Your task to perform on an android device: Go to accessibility settings Image 0: 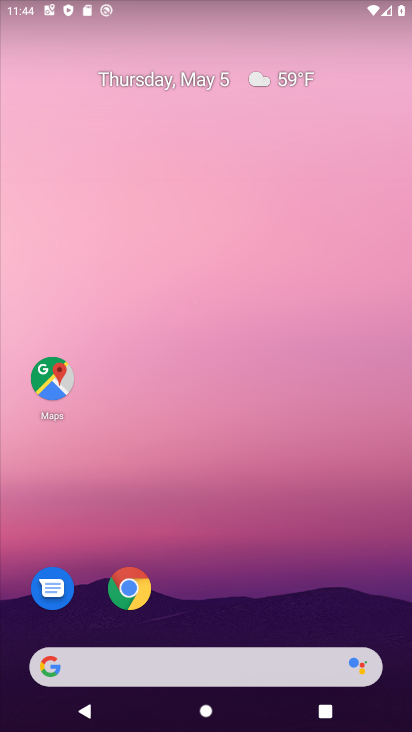
Step 0: drag from (292, 558) to (315, 78)
Your task to perform on an android device: Go to accessibility settings Image 1: 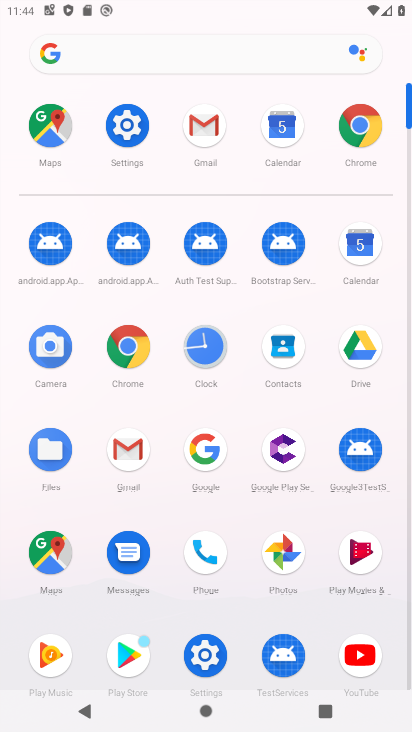
Step 1: click (127, 123)
Your task to perform on an android device: Go to accessibility settings Image 2: 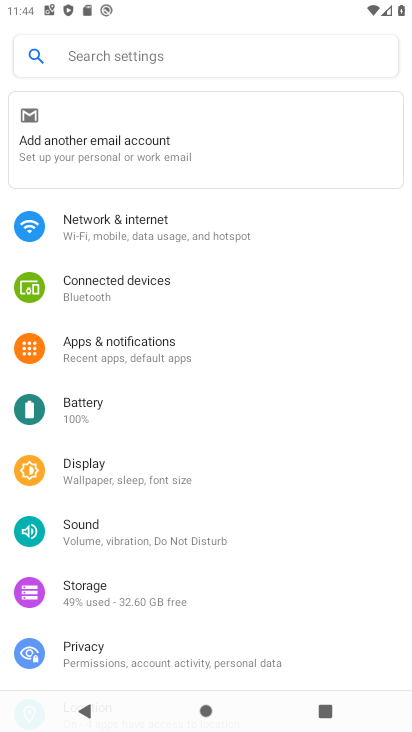
Step 2: drag from (222, 614) to (245, 154)
Your task to perform on an android device: Go to accessibility settings Image 3: 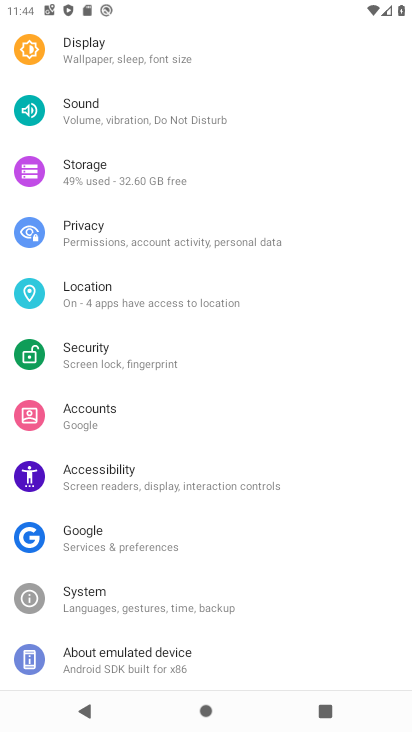
Step 3: click (194, 486)
Your task to perform on an android device: Go to accessibility settings Image 4: 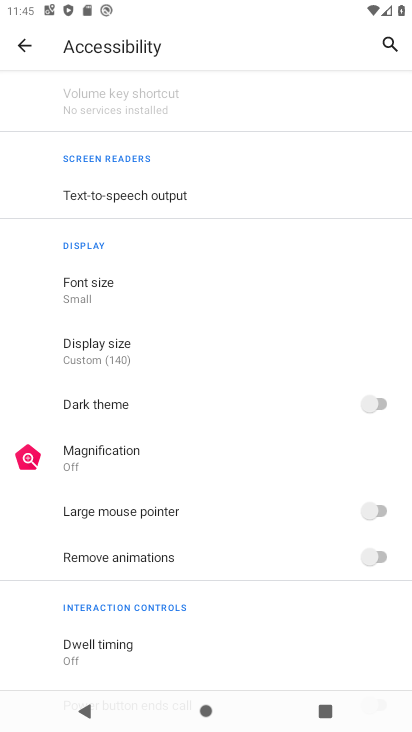
Step 4: task complete